Your task to perform on an android device: Open the calendar app, open the side menu, and click the "Day" option Image 0: 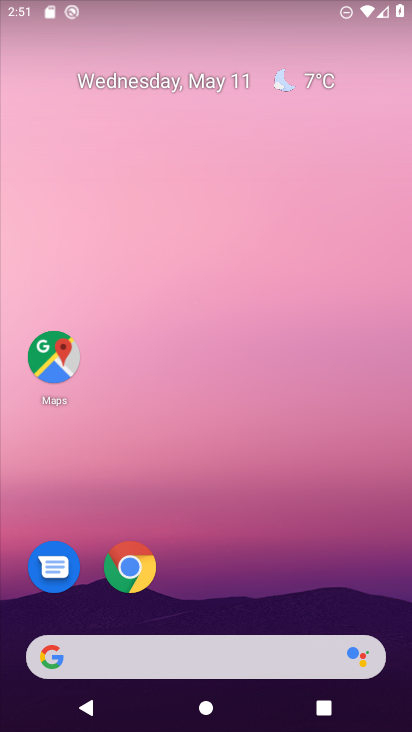
Step 0: drag from (299, 592) to (206, 182)
Your task to perform on an android device: Open the calendar app, open the side menu, and click the "Day" option Image 1: 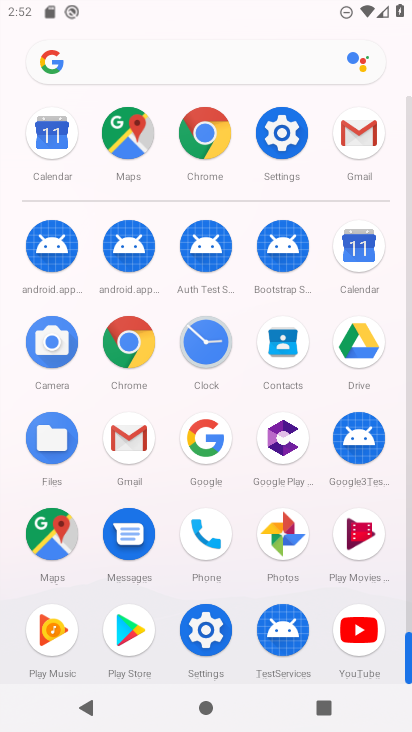
Step 1: click (361, 240)
Your task to perform on an android device: Open the calendar app, open the side menu, and click the "Day" option Image 2: 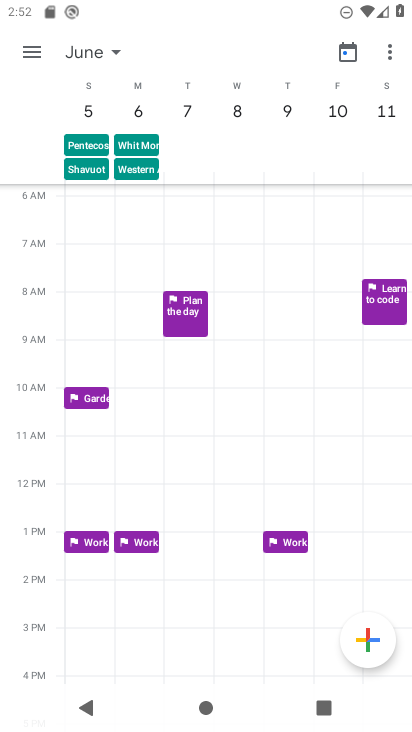
Step 2: click (34, 46)
Your task to perform on an android device: Open the calendar app, open the side menu, and click the "Day" option Image 3: 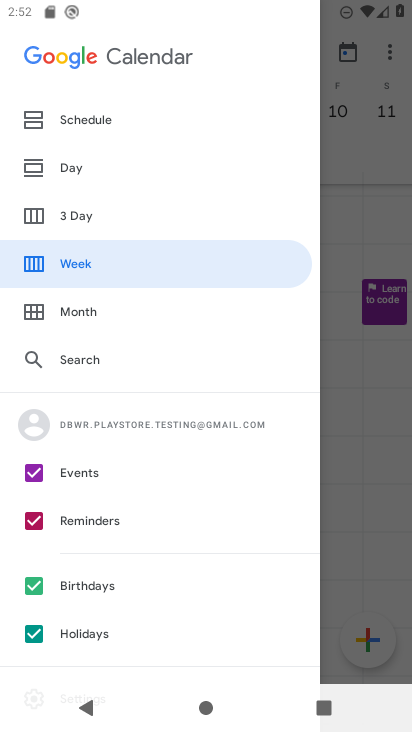
Step 3: click (83, 170)
Your task to perform on an android device: Open the calendar app, open the side menu, and click the "Day" option Image 4: 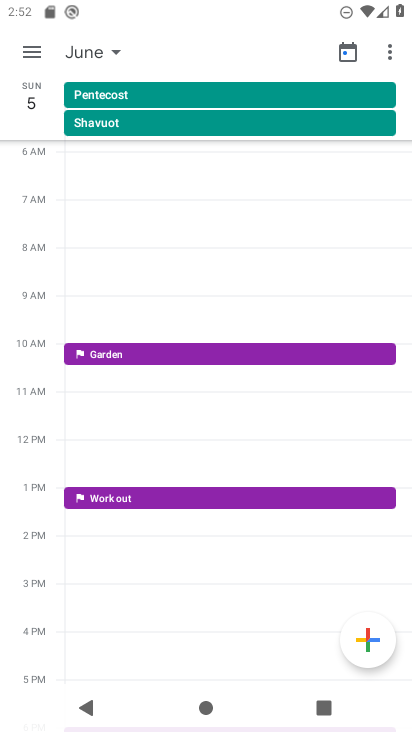
Step 4: task complete